Your task to perform on an android device: Set the phone to "Do not disturb". Image 0: 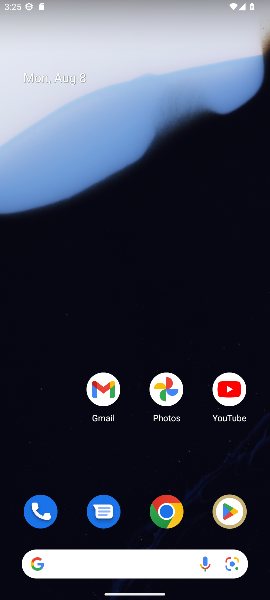
Step 0: press home button
Your task to perform on an android device: Set the phone to "Do not disturb". Image 1: 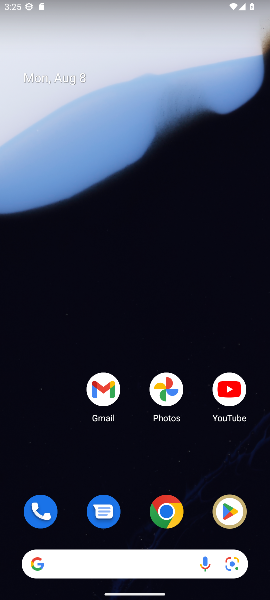
Step 1: drag from (134, 466) to (133, 28)
Your task to perform on an android device: Set the phone to "Do not disturb". Image 2: 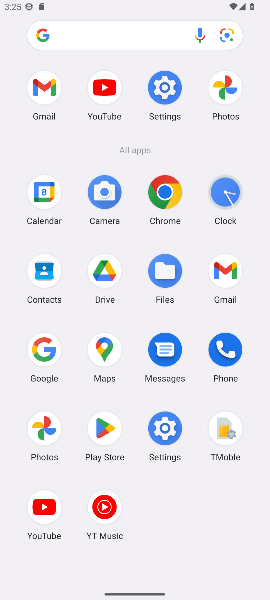
Step 2: press home button
Your task to perform on an android device: Set the phone to "Do not disturb". Image 3: 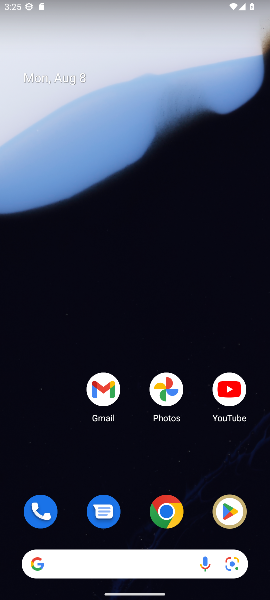
Step 3: drag from (149, 1) to (217, 388)
Your task to perform on an android device: Set the phone to "Do not disturb". Image 4: 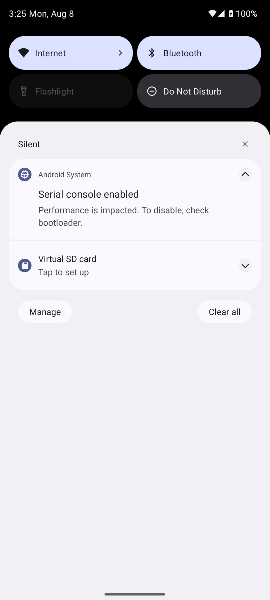
Step 4: click (169, 97)
Your task to perform on an android device: Set the phone to "Do not disturb". Image 5: 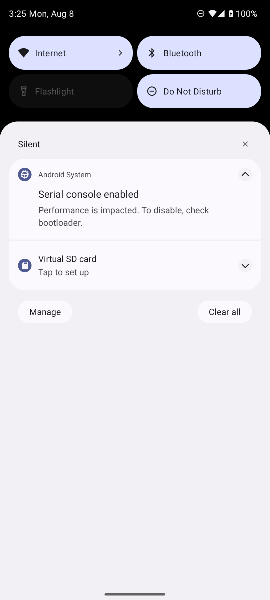
Step 5: task complete